Your task to perform on an android device: open app "Expedia: Hotels, Flights & Car" (install if not already installed) Image 0: 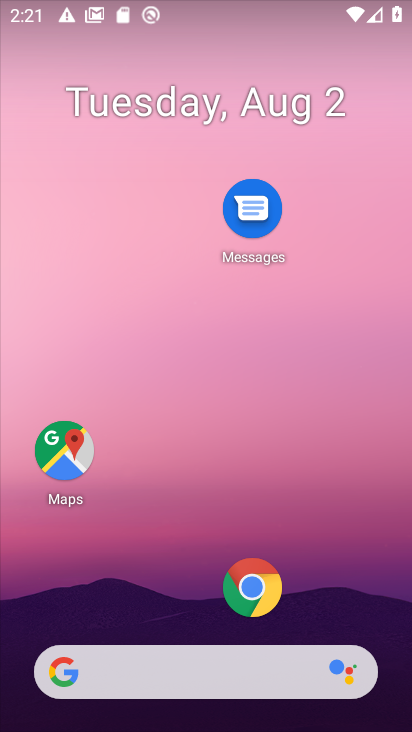
Step 0: drag from (163, 586) to (186, 126)
Your task to perform on an android device: open app "Expedia: Hotels, Flights & Car" (install if not already installed) Image 1: 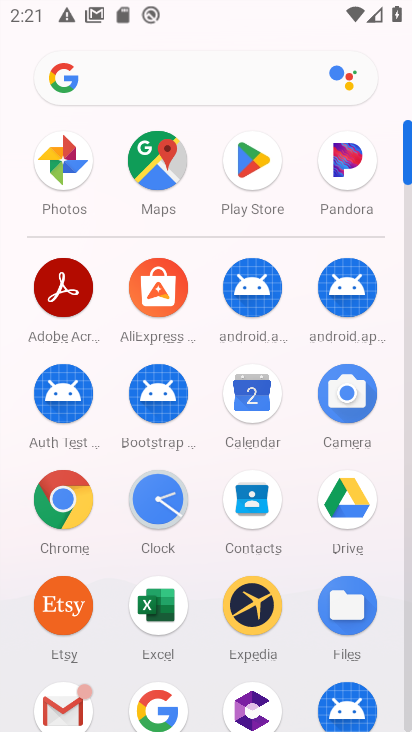
Step 1: click (242, 139)
Your task to perform on an android device: open app "Expedia: Hotels, Flights & Car" (install if not already installed) Image 2: 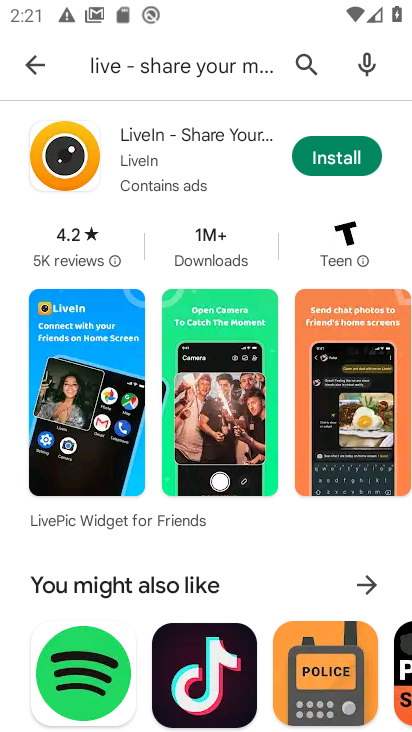
Step 2: click (303, 78)
Your task to perform on an android device: open app "Expedia: Hotels, Flights & Car" (install if not already installed) Image 3: 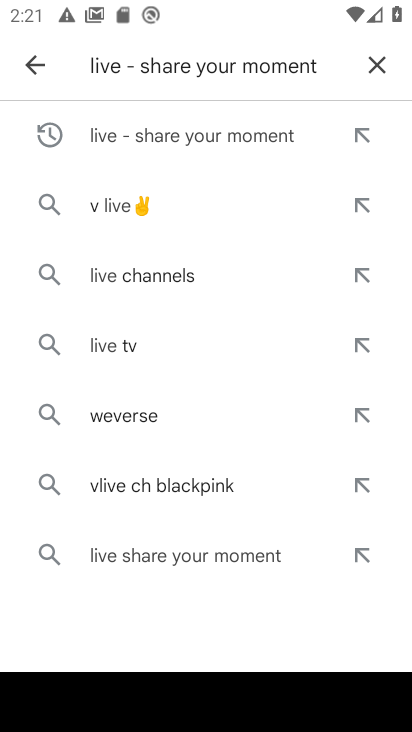
Step 3: click (366, 72)
Your task to perform on an android device: open app "Expedia: Hotels, Flights & Car" (install if not already installed) Image 4: 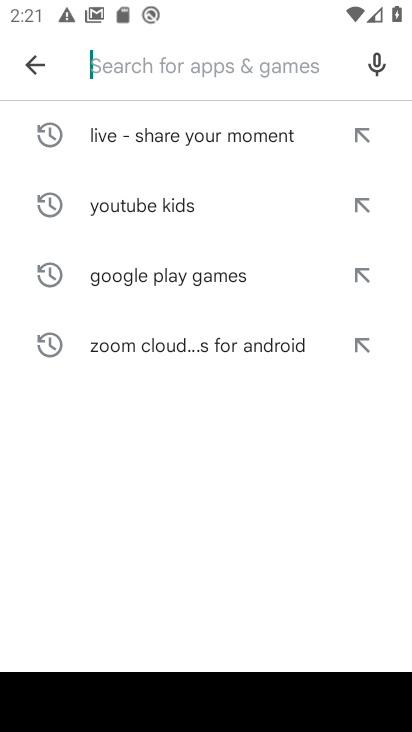
Step 4: type "Expedia: Hotels, Flights & Car"
Your task to perform on an android device: open app "Expedia: Hotels, Flights & Car" (install if not already installed) Image 5: 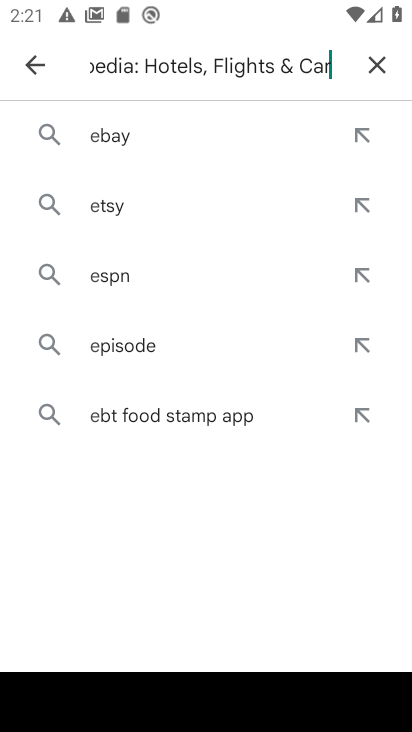
Step 5: type ""
Your task to perform on an android device: open app "Expedia: Hotels, Flights & Car" (install if not already installed) Image 6: 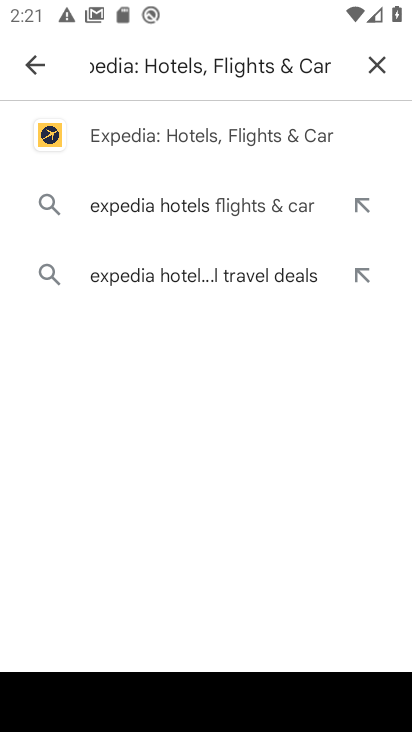
Step 6: click (180, 143)
Your task to perform on an android device: open app "Expedia: Hotels, Flights & Car" (install if not already installed) Image 7: 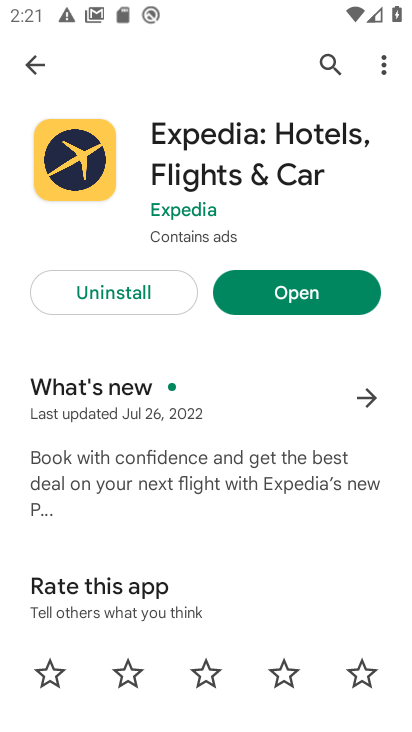
Step 7: click (340, 299)
Your task to perform on an android device: open app "Expedia: Hotels, Flights & Car" (install if not already installed) Image 8: 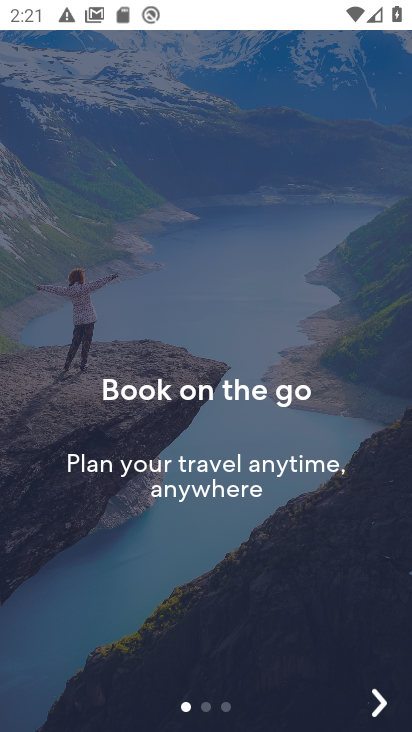
Step 8: task complete